Your task to perform on an android device: toggle javascript in the chrome app Image 0: 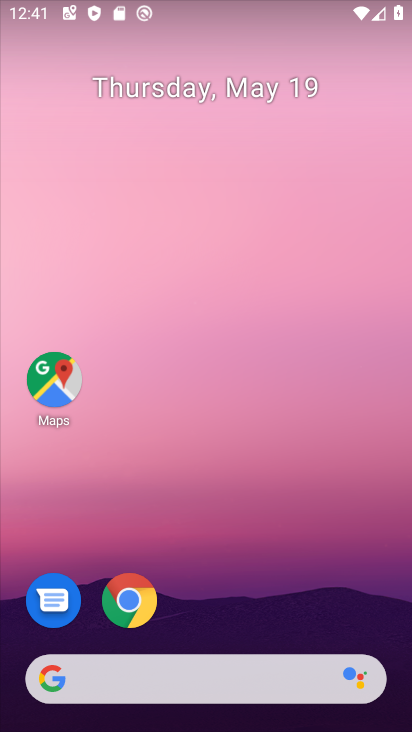
Step 0: click (129, 618)
Your task to perform on an android device: toggle javascript in the chrome app Image 1: 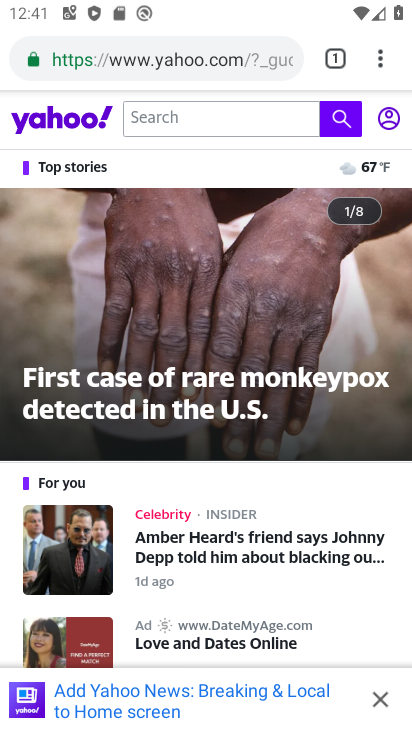
Step 1: click (384, 58)
Your task to perform on an android device: toggle javascript in the chrome app Image 2: 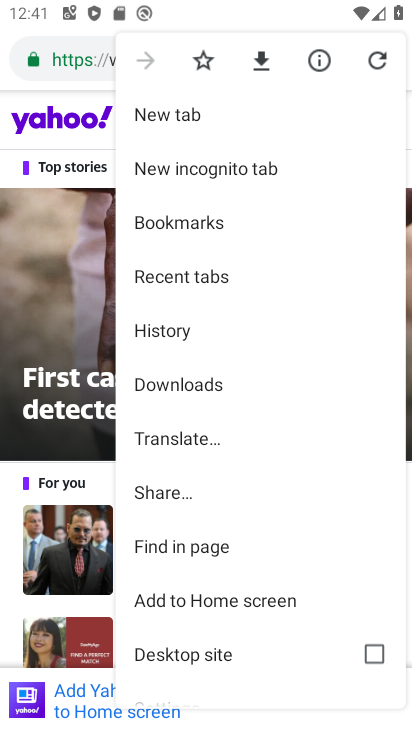
Step 2: drag from (237, 601) to (196, 423)
Your task to perform on an android device: toggle javascript in the chrome app Image 3: 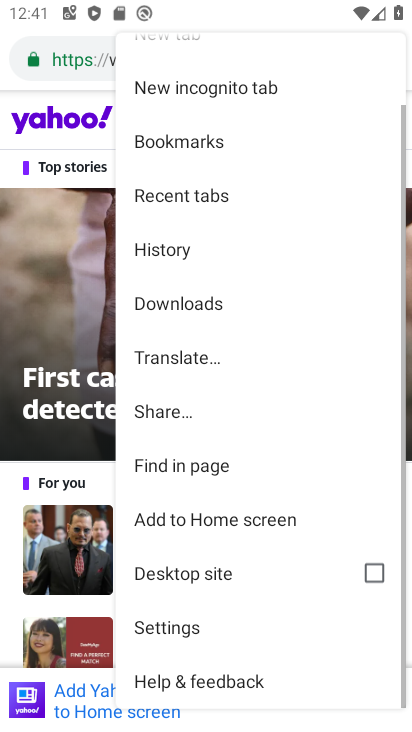
Step 3: click (214, 629)
Your task to perform on an android device: toggle javascript in the chrome app Image 4: 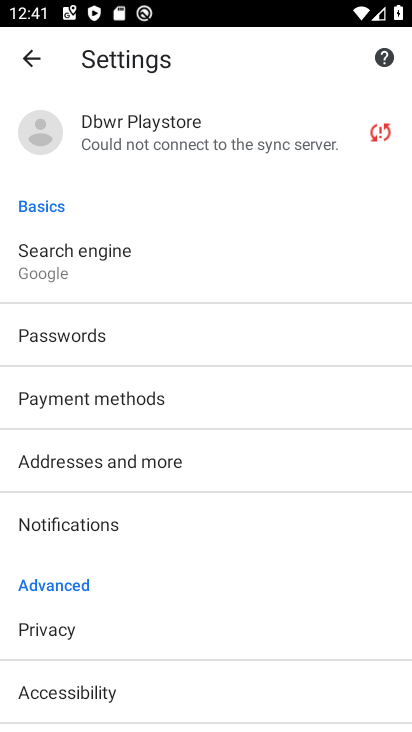
Step 4: drag from (177, 596) to (135, 421)
Your task to perform on an android device: toggle javascript in the chrome app Image 5: 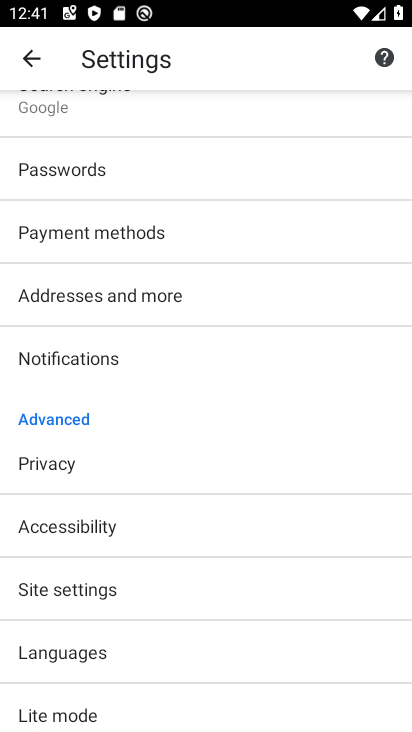
Step 5: click (124, 597)
Your task to perform on an android device: toggle javascript in the chrome app Image 6: 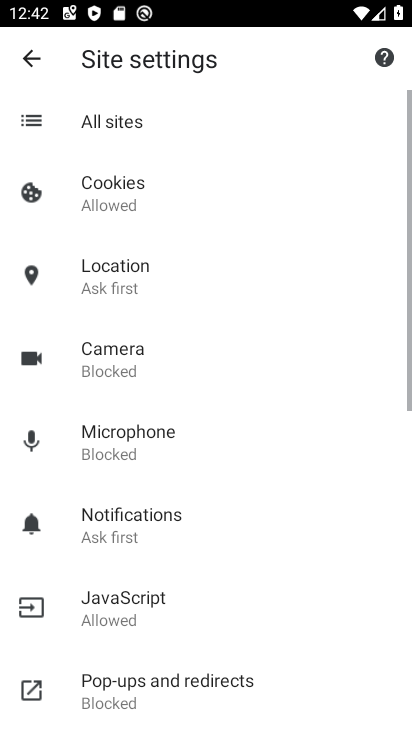
Step 6: click (124, 597)
Your task to perform on an android device: toggle javascript in the chrome app Image 7: 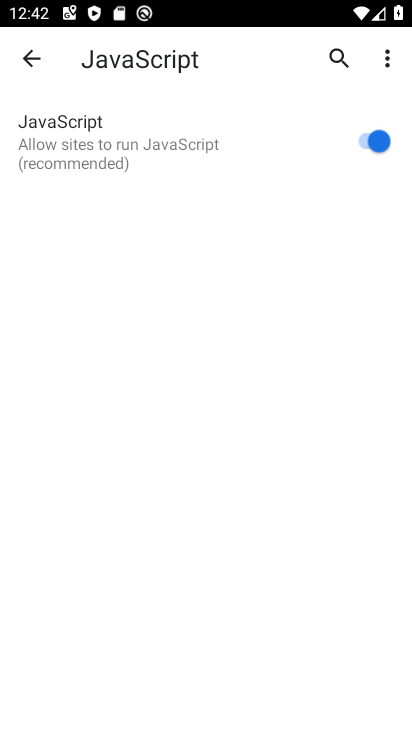
Step 7: click (346, 140)
Your task to perform on an android device: toggle javascript in the chrome app Image 8: 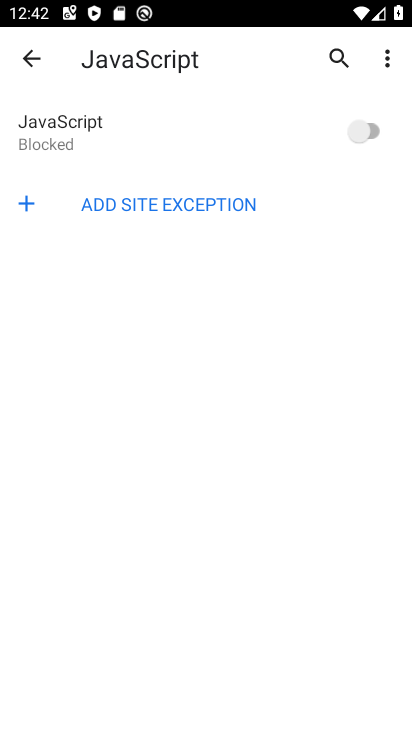
Step 8: task complete